Your task to perform on an android device: Open CNN.com Image 0: 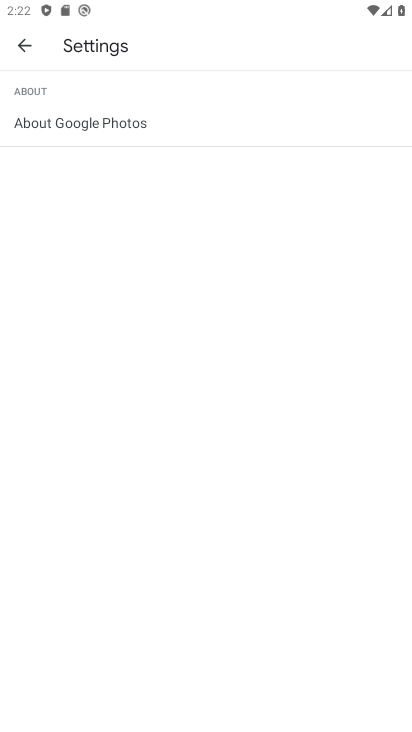
Step 0: press home button
Your task to perform on an android device: Open CNN.com Image 1: 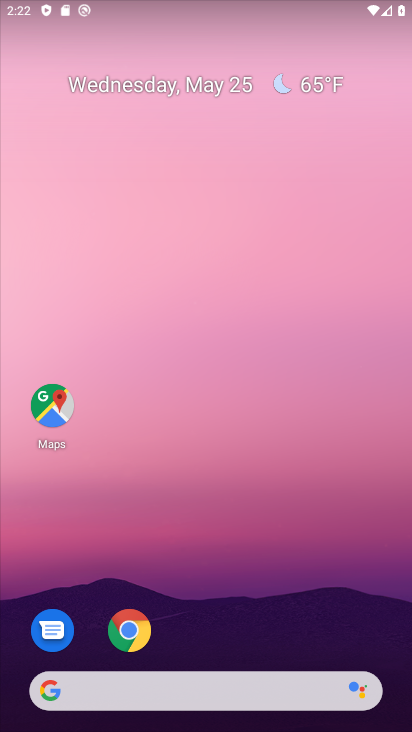
Step 1: click (124, 624)
Your task to perform on an android device: Open CNN.com Image 2: 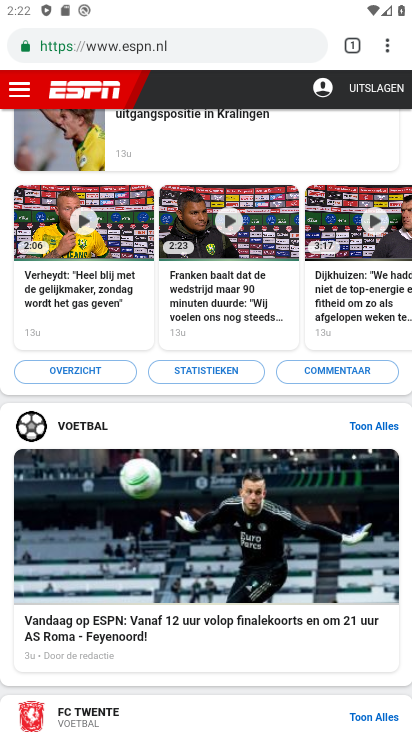
Step 2: click (351, 42)
Your task to perform on an android device: Open CNN.com Image 3: 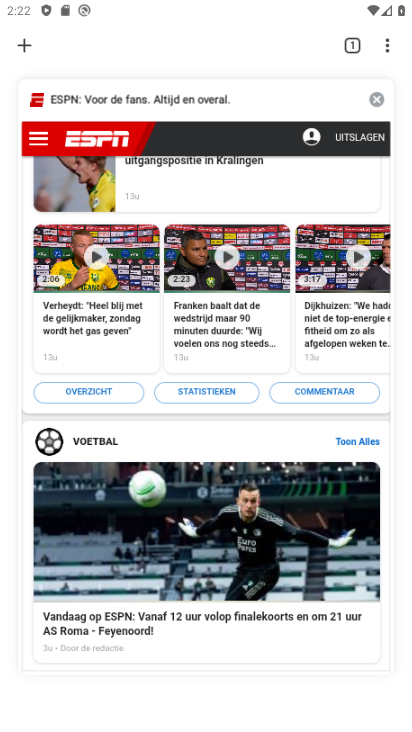
Step 3: click (376, 97)
Your task to perform on an android device: Open CNN.com Image 4: 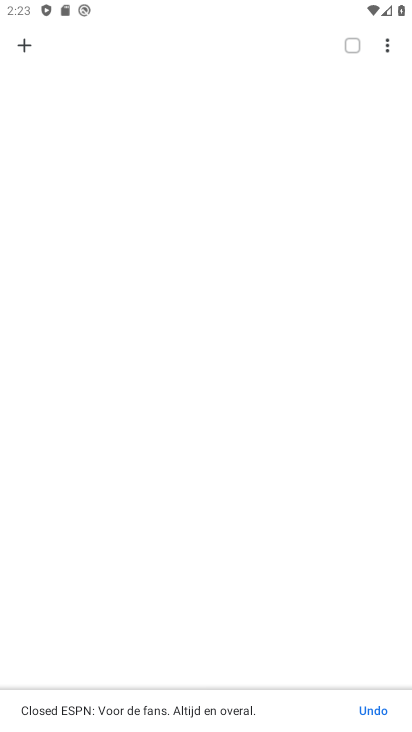
Step 4: click (24, 45)
Your task to perform on an android device: Open CNN.com Image 5: 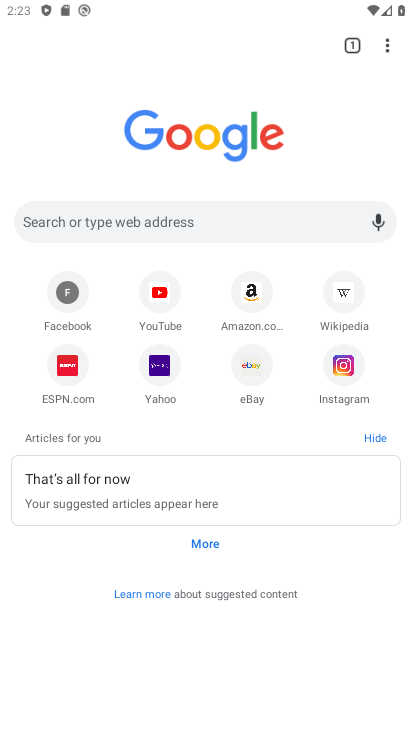
Step 5: click (72, 209)
Your task to perform on an android device: Open CNN.com Image 6: 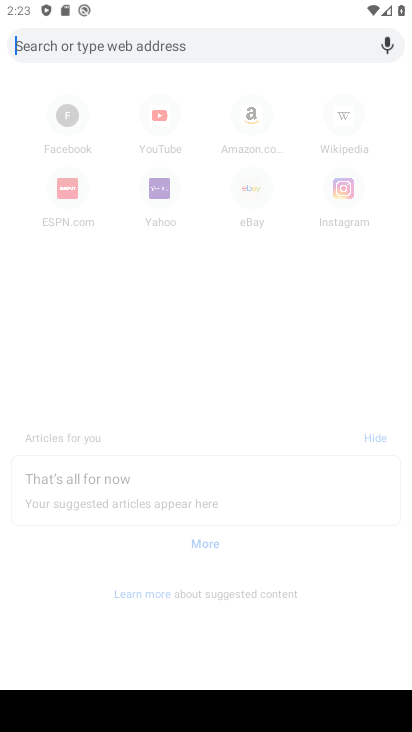
Step 6: type "cnn.com"
Your task to perform on an android device: Open CNN.com Image 7: 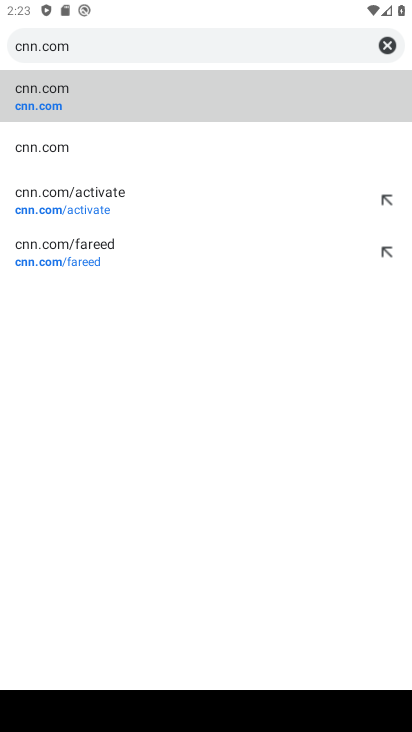
Step 7: click (70, 102)
Your task to perform on an android device: Open CNN.com Image 8: 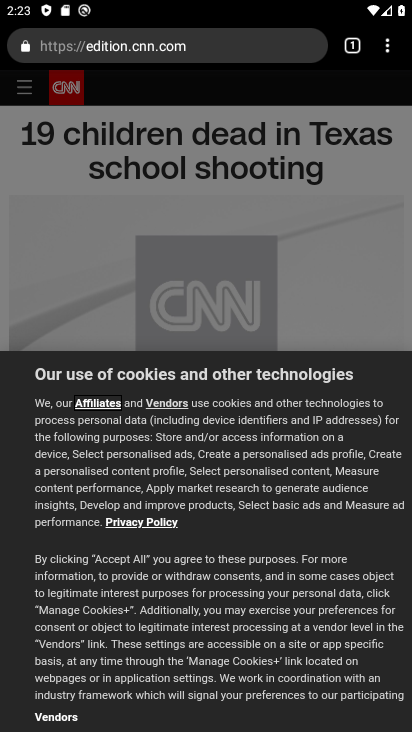
Step 8: drag from (198, 635) to (203, 247)
Your task to perform on an android device: Open CNN.com Image 9: 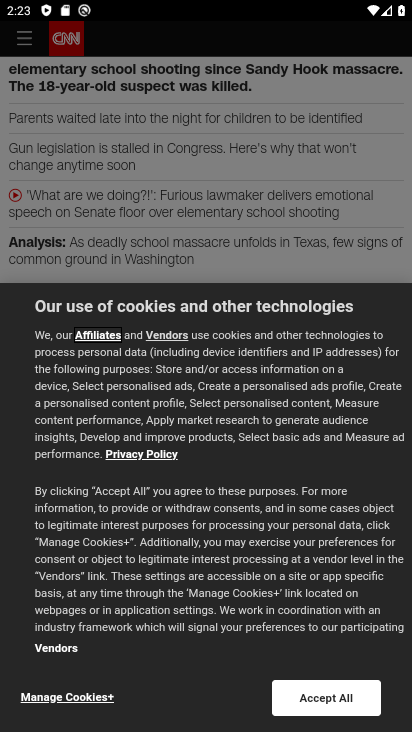
Step 9: click (330, 699)
Your task to perform on an android device: Open CNN.com Image 10: 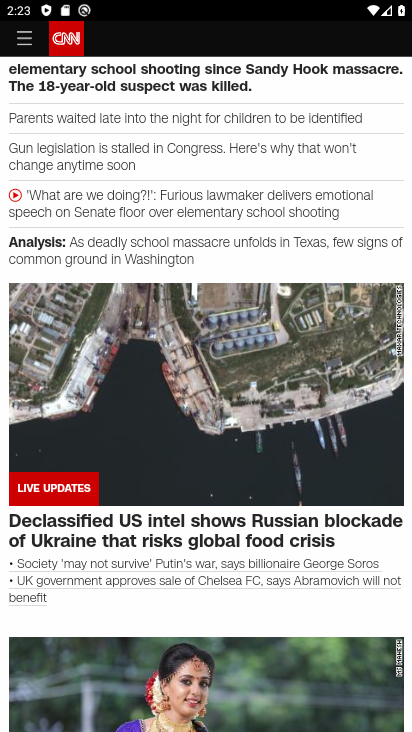
Step 10: task complete